Your task to perform on an android device: Open Wikipedia Image 0: 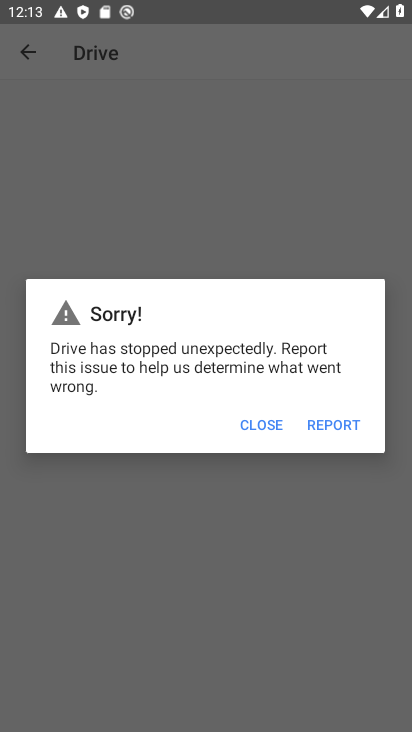
Step 0: press home button
Your task to perform on an android device: Open Wikipedia Image 1: 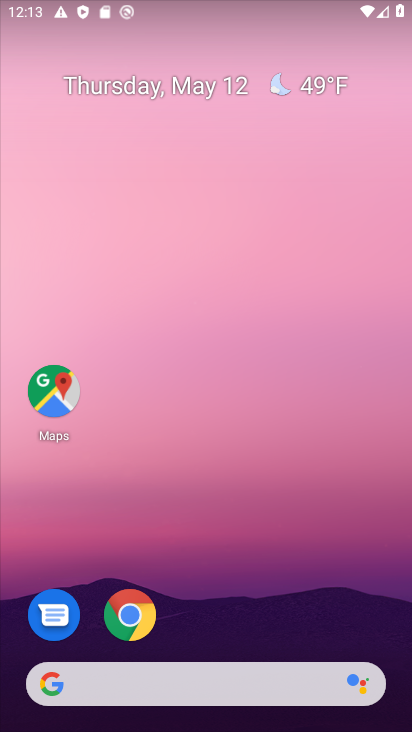
Step 1: drag from (241, 713) to (313, 348)
Your task to perform on an android device: Open Wikipedia Image 2: 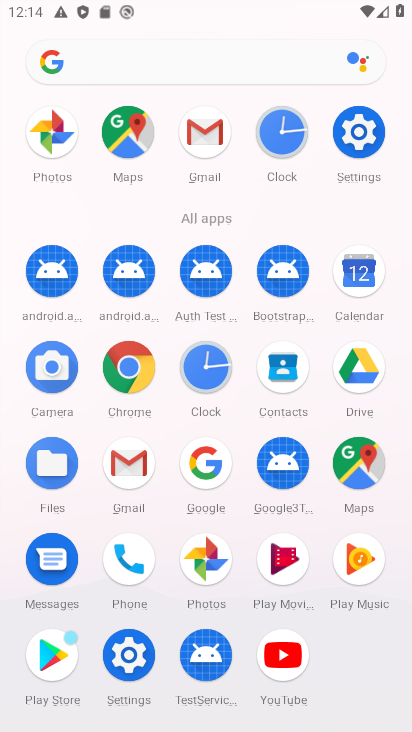
Step 2: click (136, 363)
Your task to perform on an android device: Open Wikipedia Image 3: 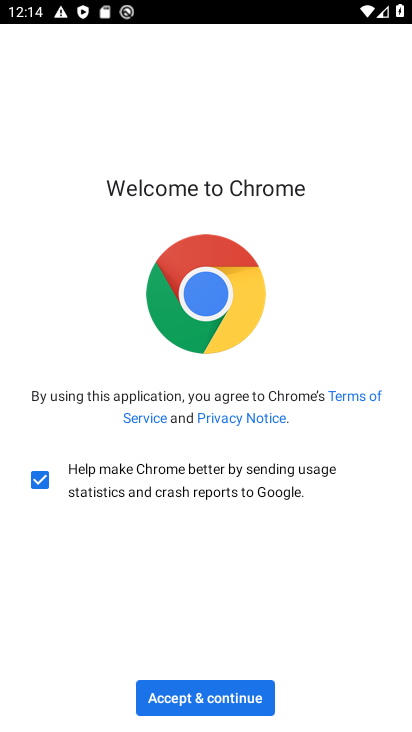
Step 3: click (209, 702)
Your task to perform on an android device: Open Wikipedia Image 4: 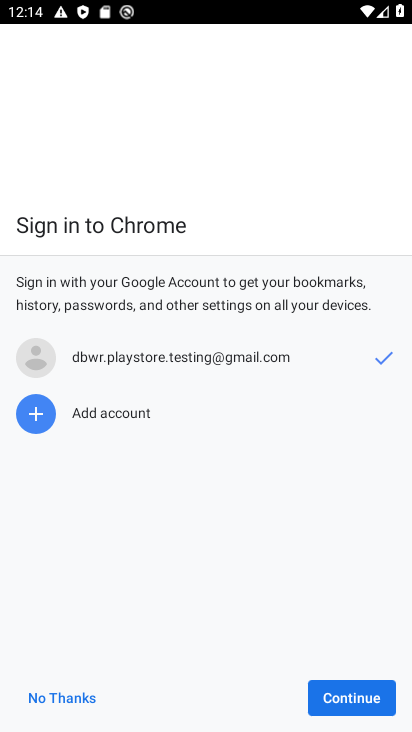
Step 4: click (346, 699)
Your task to perform on an android device: Open Wikipedia Image 5: 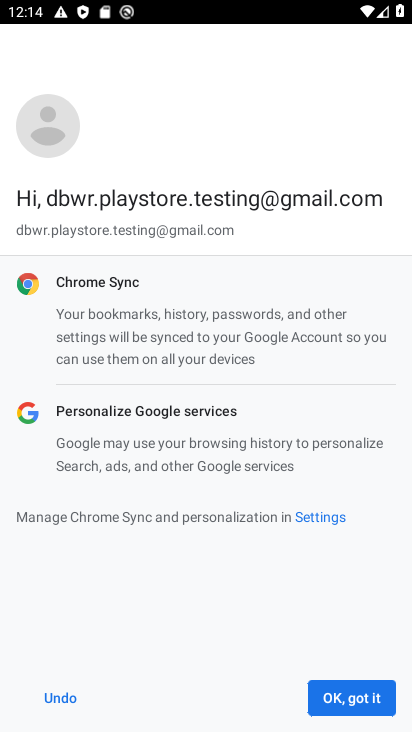
Step 5: click (335, 695)
Your task to perform on an android device: Open Wikipedia Image 6: 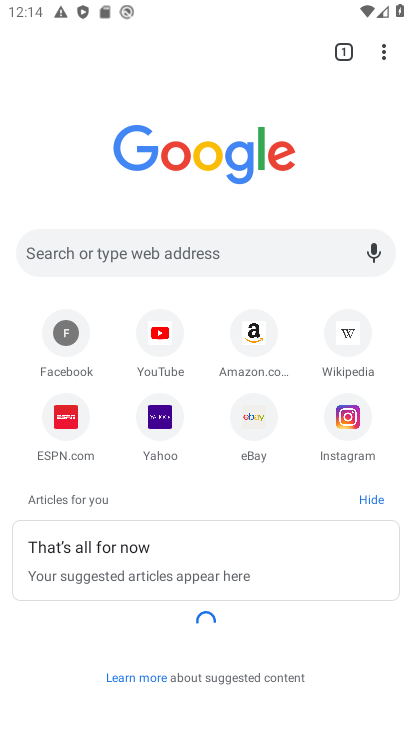
Step 6: click (345, 355)
Your task to perform on an android device: Open Wikipedia Image 7: 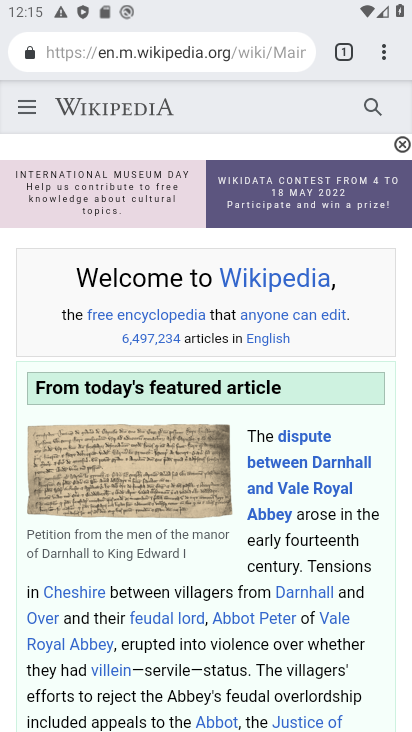
Step 7: task complete